Your task to perform on an android device: turn on sleep mode Image 0: 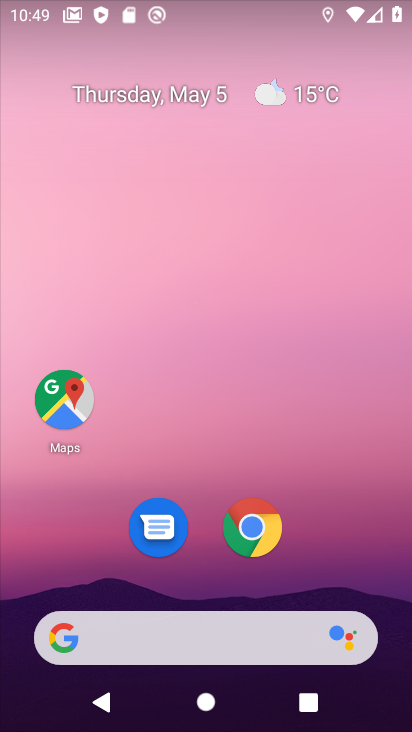
Step 0: drag from (214, 581) to (237, 16)
Your task to perform on an android device: turn on sleep mode Image 1: 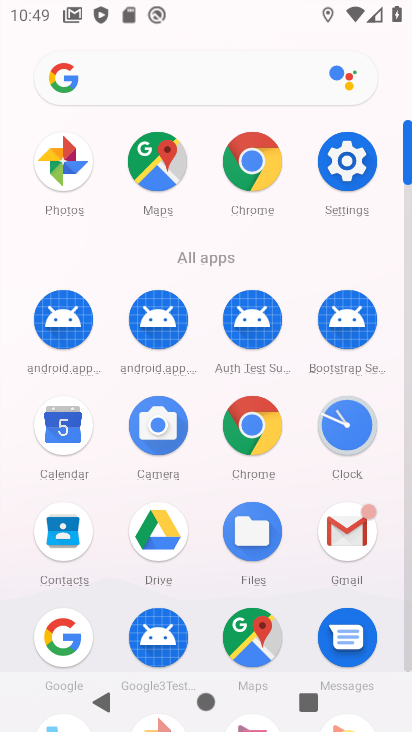
Step 1: click (340, 172)
Your task to perform on an android device: turn on sleep mode Image 2: 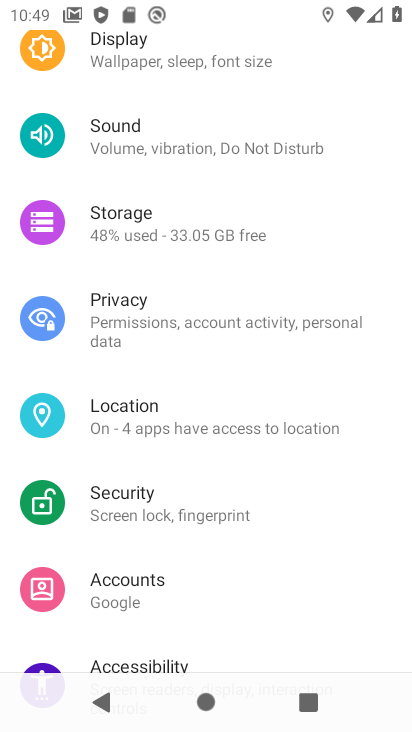
Step 2: drag from (291, 142) to (286, 629)
Your task to perform on an android device: turn on sleep mode Image 3: 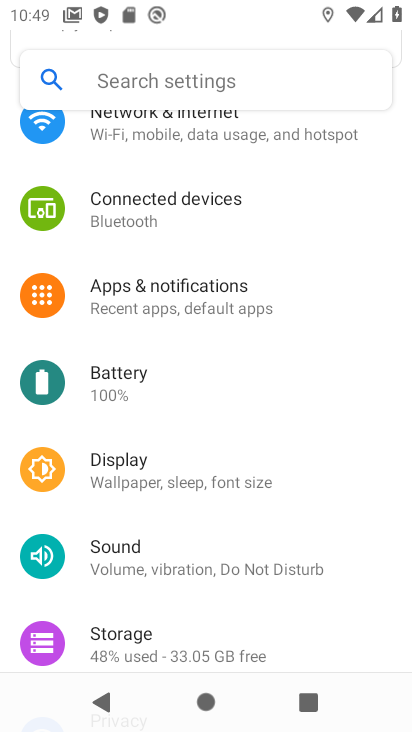
Step 3: click (240, 80)
Your task to perform on an android device: turn on sleep mode Image 4: 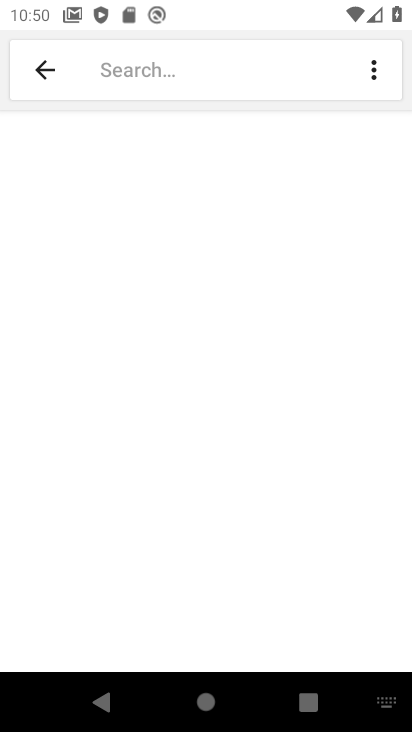
Step 4: type "sleep mode"
Your task to perform on an android device: turn on sleep mode Image 5: 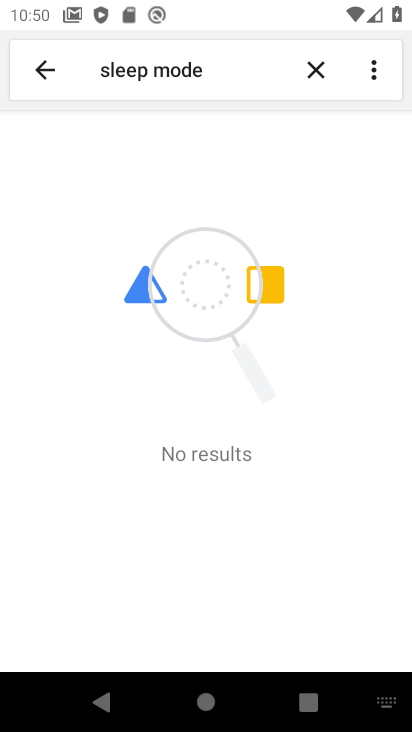
Step 5: task complete